Your task to perform on an android device: Go to internet settings Image 0: 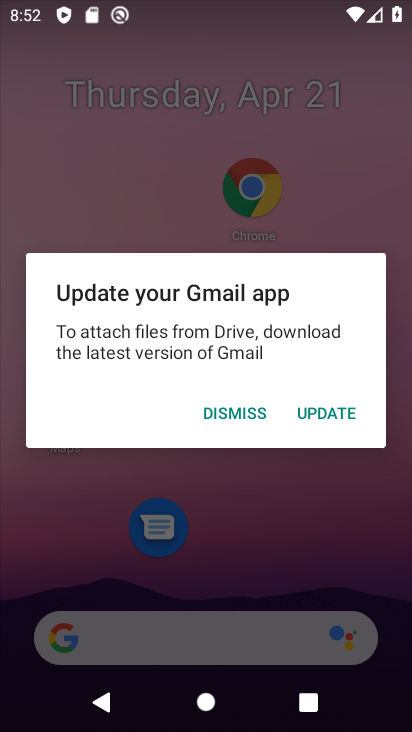
Step 0: press home button
Your task to perform on an android device: Go to internet settings Image 1: 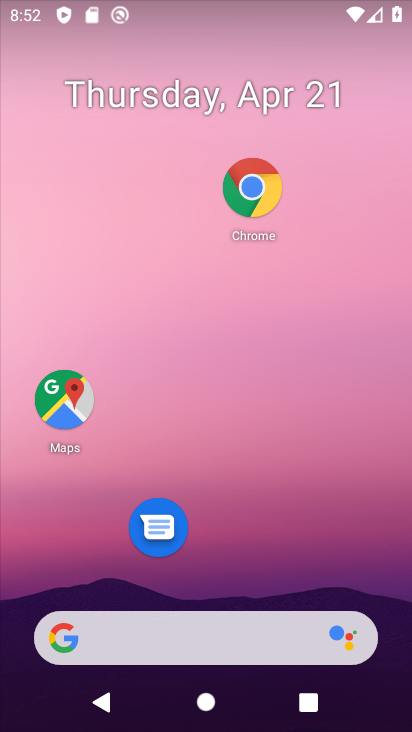
Step 1: drag from (275, 539) to (310, 312)
Your task to perform on an android device: Go to internet settings Image 2: 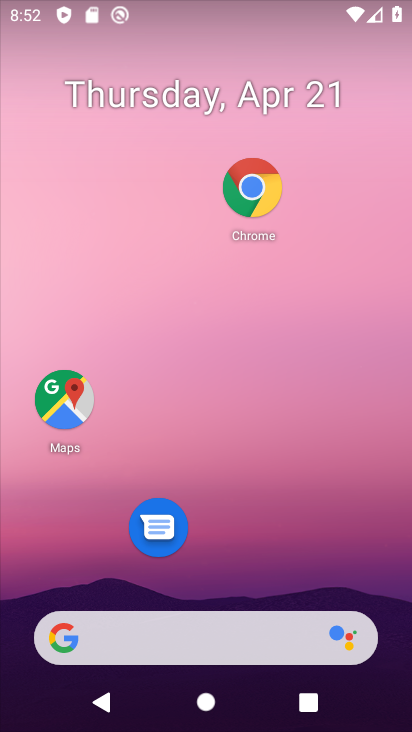
Step 2: drag from (295, 552) to (243, 61)
Your task to perform on an android device: Go to internet settings Image 3: 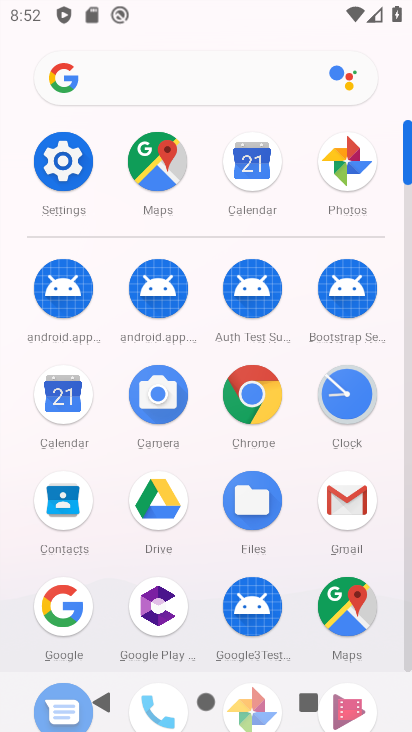
Step 3: click (56, 177)
Your task to perform on an android device: Go to internet settings Image 4: 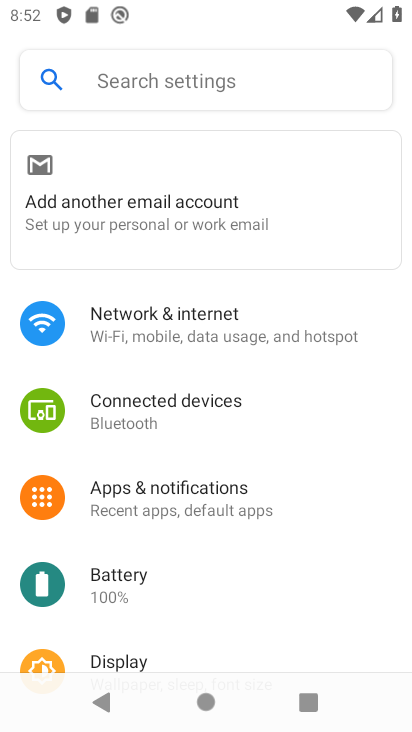
Step 4: click (194, 321)
Your task to perform on an android device: Go to internet settings Image 5: 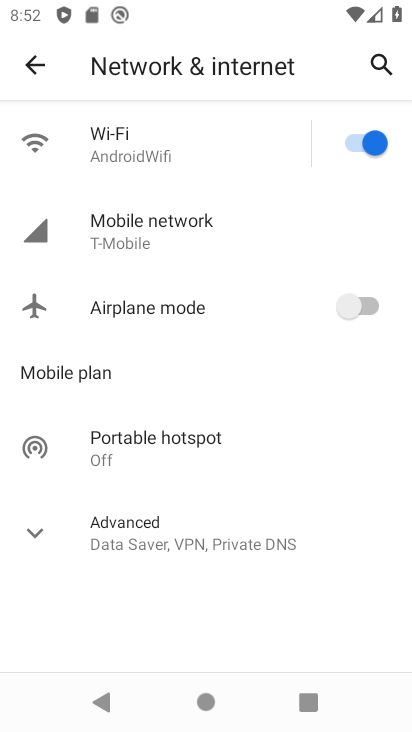
Step 5: click (180, 221)
Your task to perform on an android device: Go to internet settings Image 6: 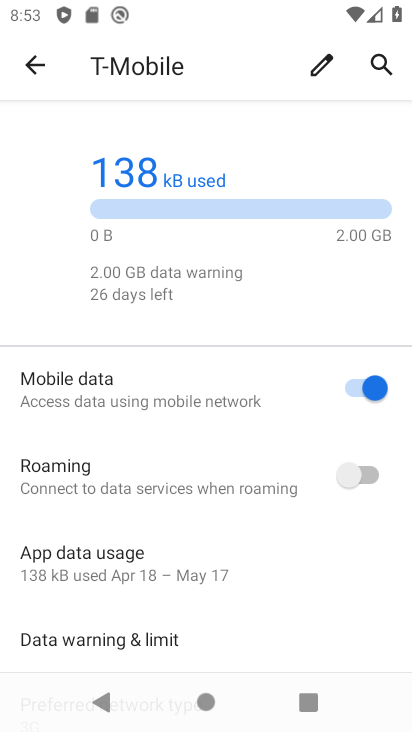
Step 6: task complete